Your task to perform on an android device: turn off picture-in-picture Image 0: 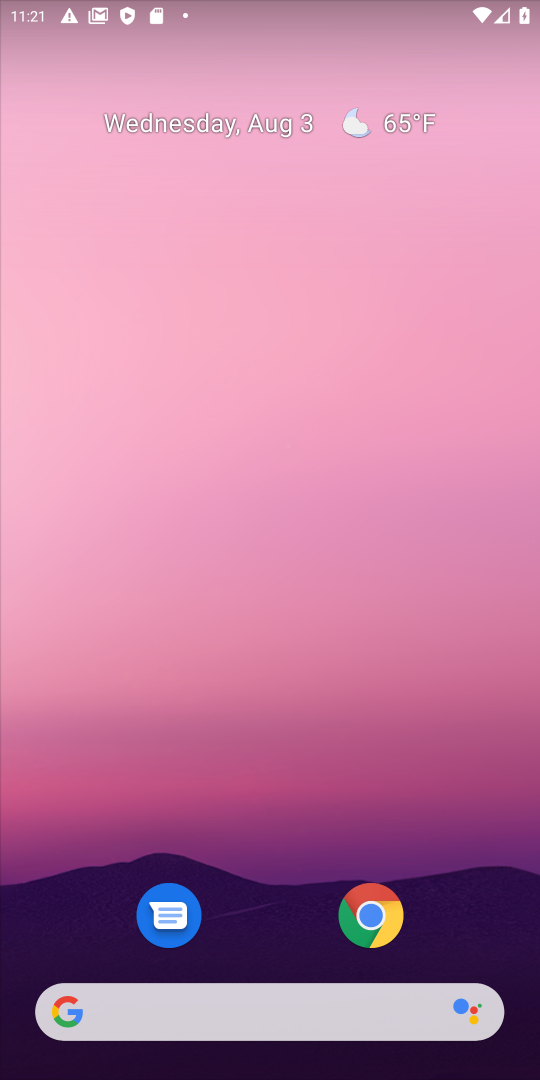
Step 0: drag from (256, 909) to (262, 167)
Your task to perform on an android device: turn off picture-in-picture Image 1: 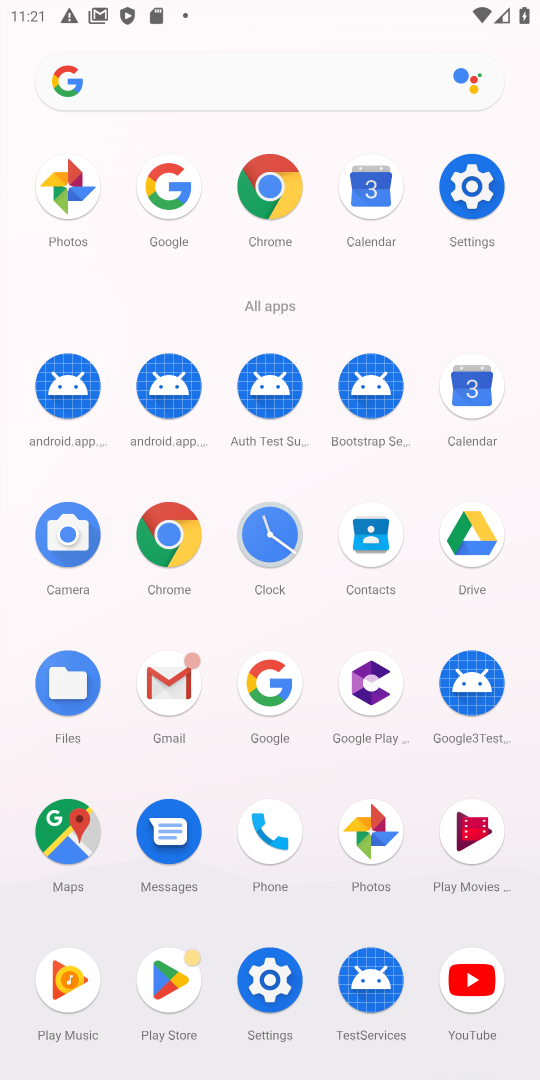
Step 1: click (465, 189)
Your task to perform on an android device: turn off picture-in-picture Image 2: 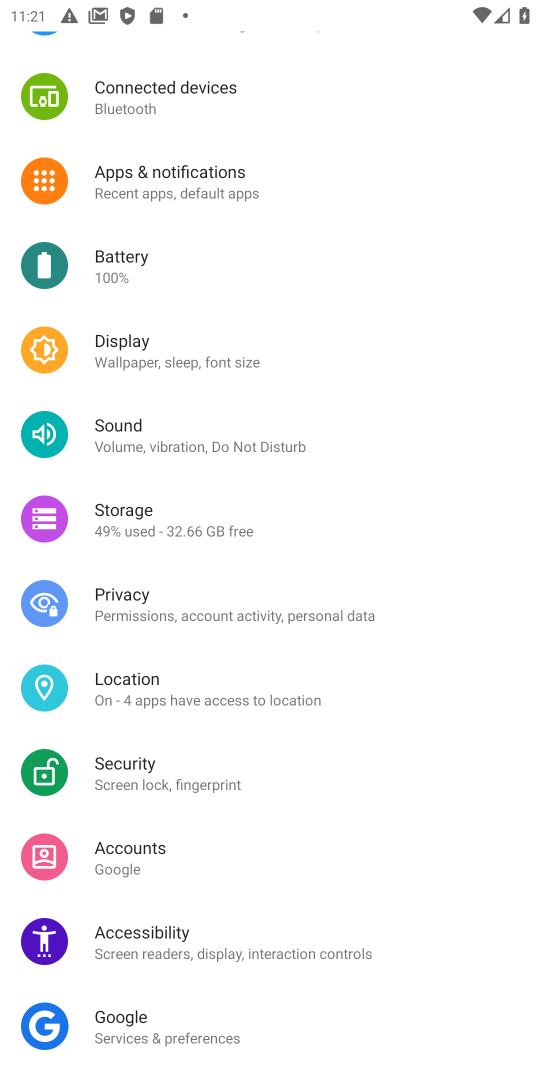
Step 2: drag from (232, 1000) to (176, 222)
Your task to perform on an android device: turn off picture-in-picture Image 3: 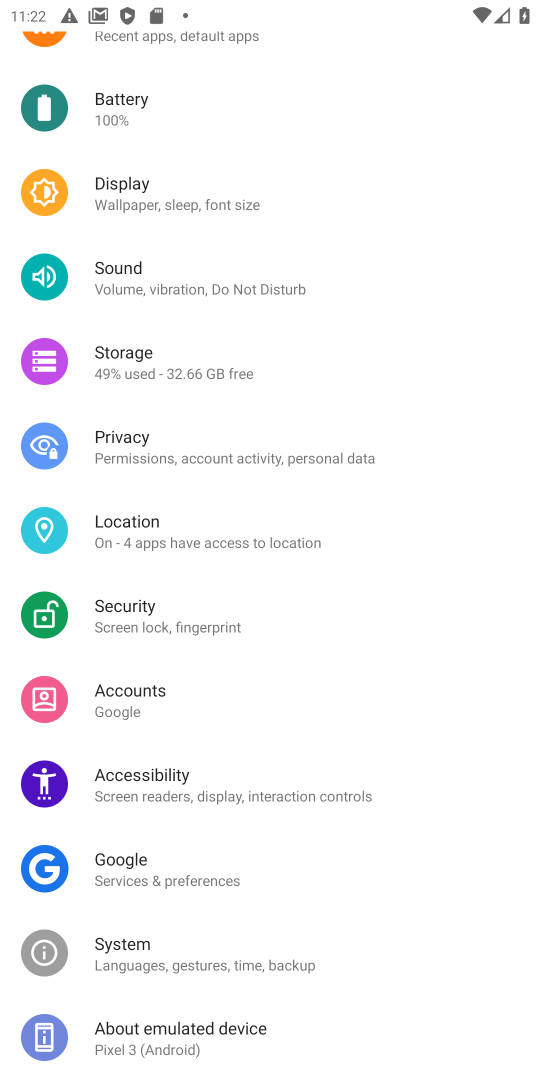
Step 3: drag from (283, 242) to (283, 544)
Your task to perform on an android device: turn off picture-in-picture Image 4: 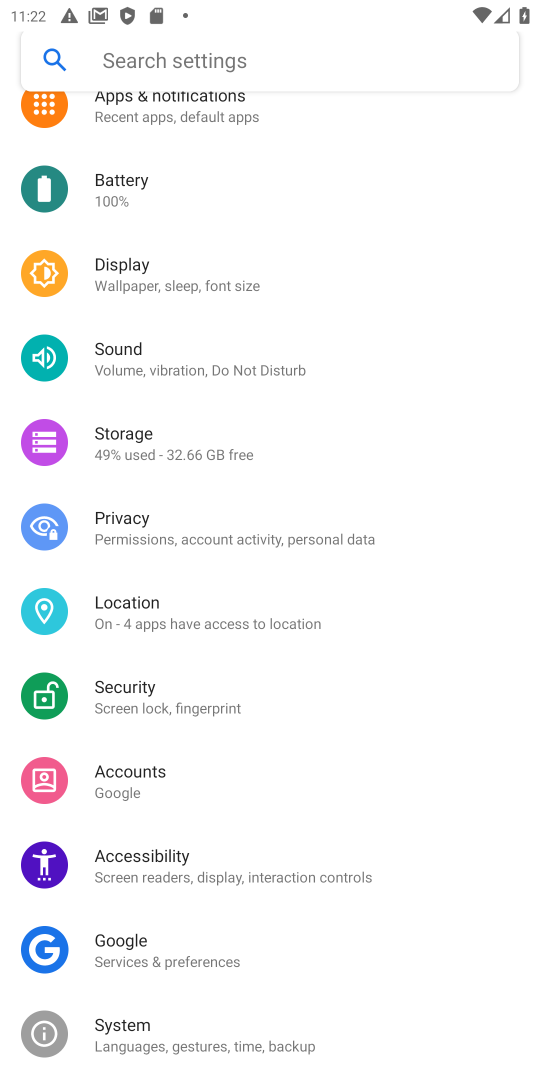
Step 4: click (120, 112)
Your task to perform on an android device: turn off picture-in-picture Image 5: 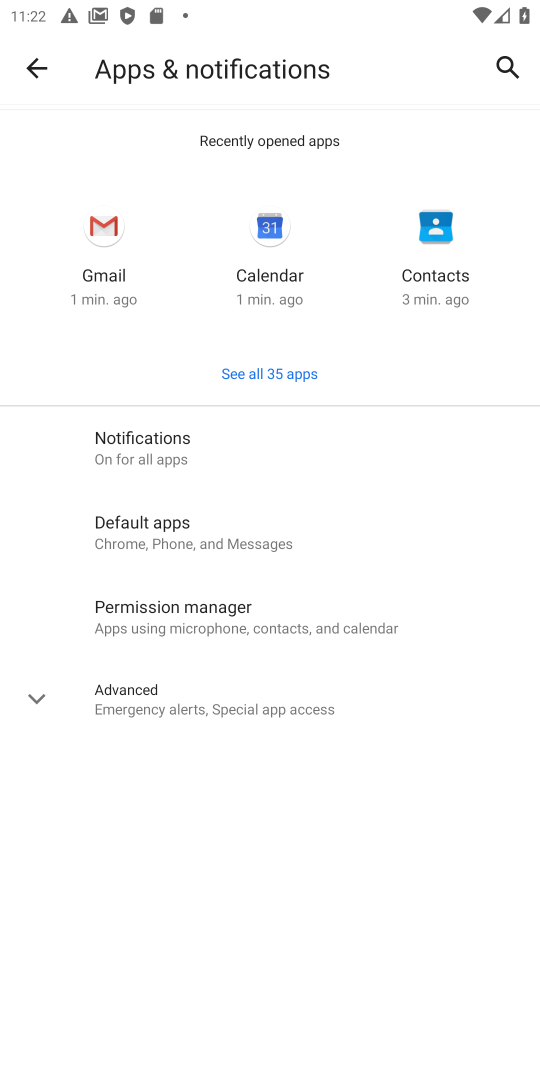
Step 5: click (143, 724)
Your task to perform on an android device: turn off picture-in-picture Image 6: 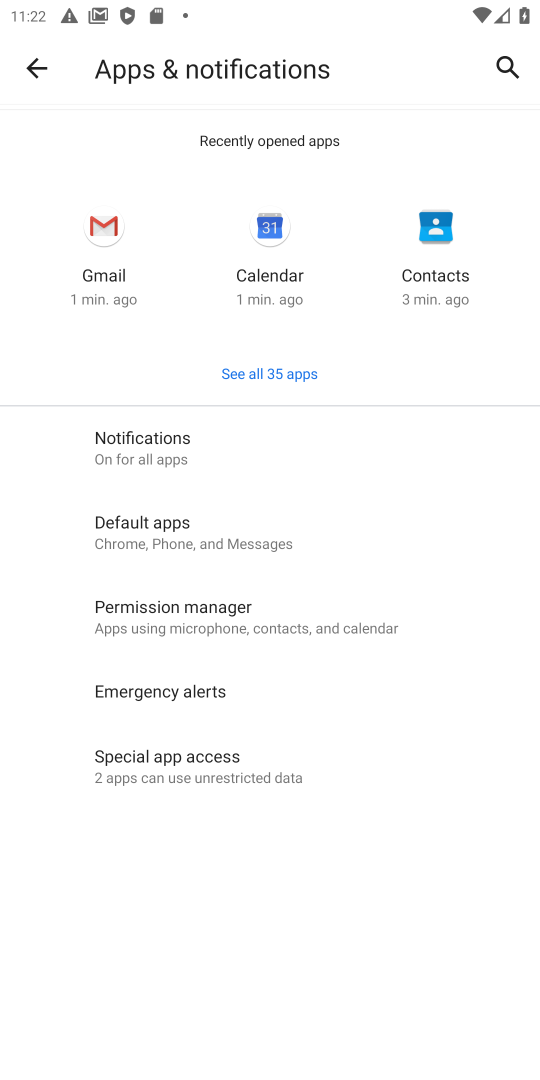
Step 6: click (141, 761)
Your task to perform on an android device: turn off picture-in-picture Image 7: 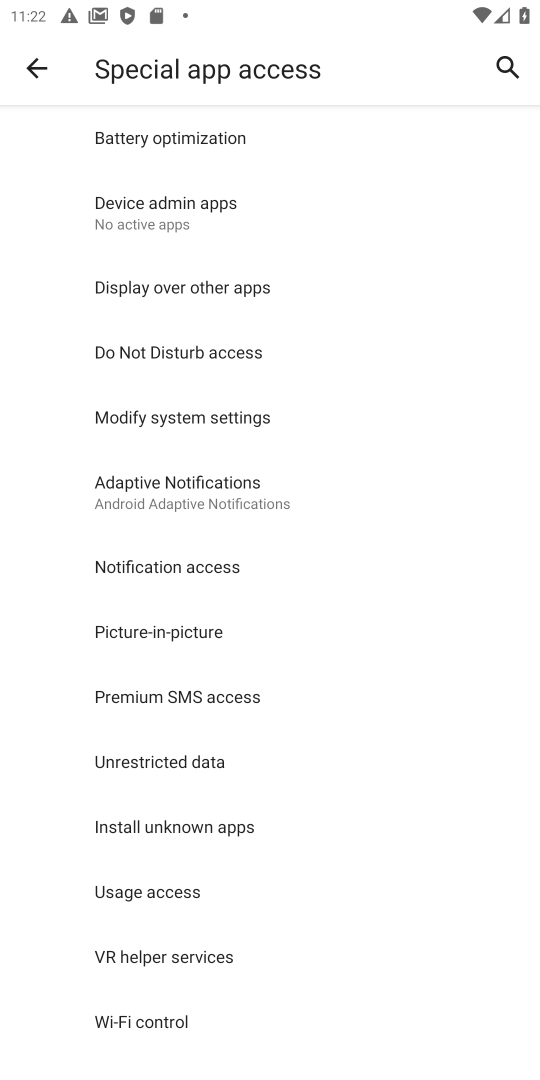
Step 7: click (170, 624)
Your task to perform on an android device: turn off picture-in-picture Image 8: 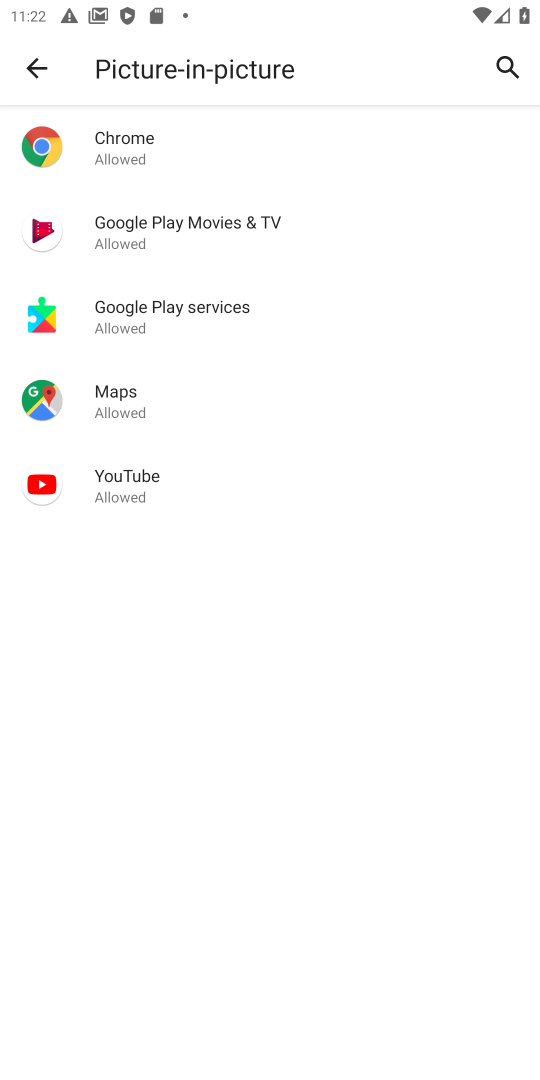
Step 8: click (126, 148)
Your task to perform on an android device: turn off picture-in-picture Image 9: 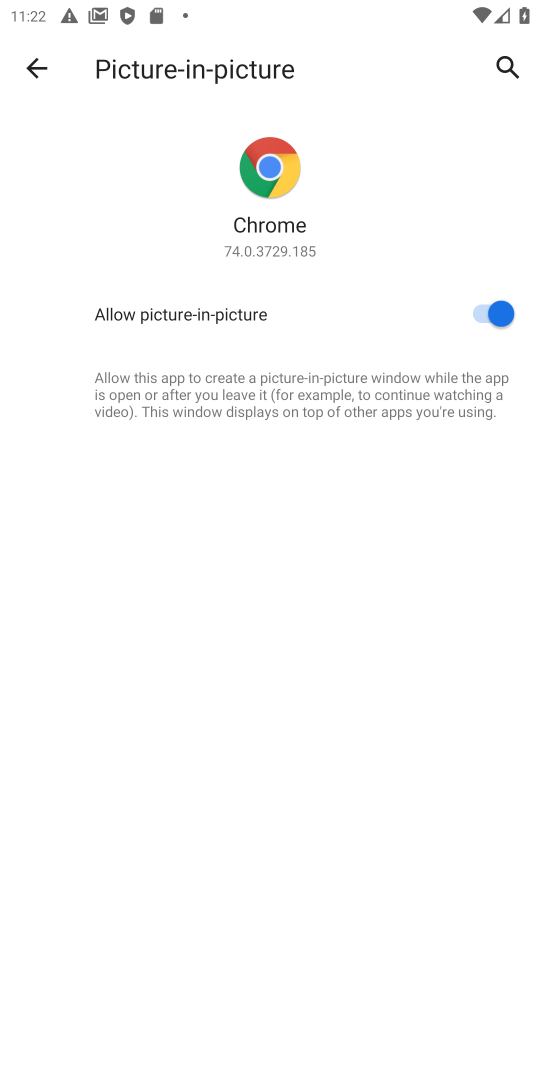
Step 9: click (470, 300)
Your task to perform on an android device: turn off picture-in-picture Image 10: 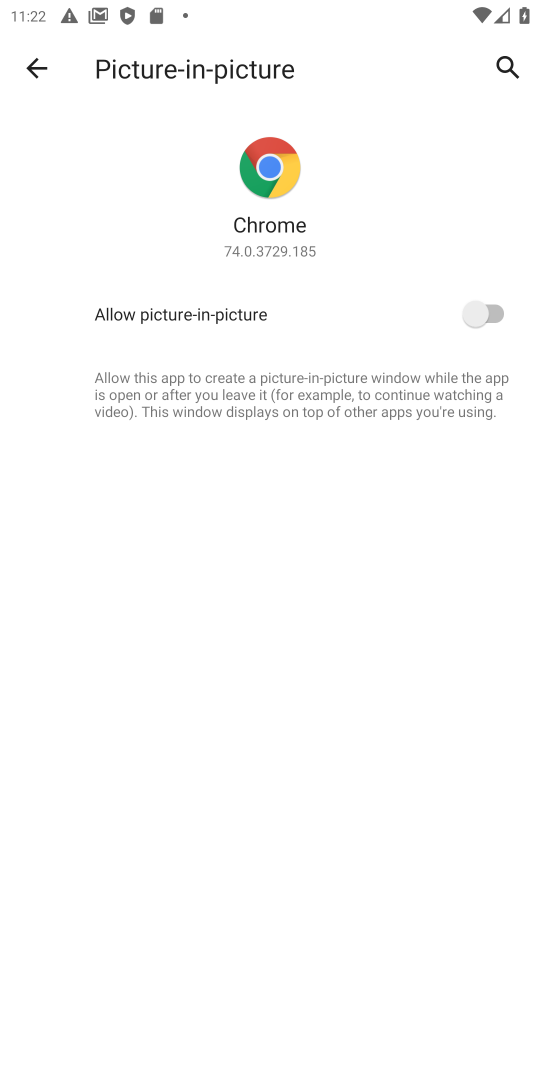
Step 10: task complete